Your task to perform on an android device: Open internet settings Image 0: 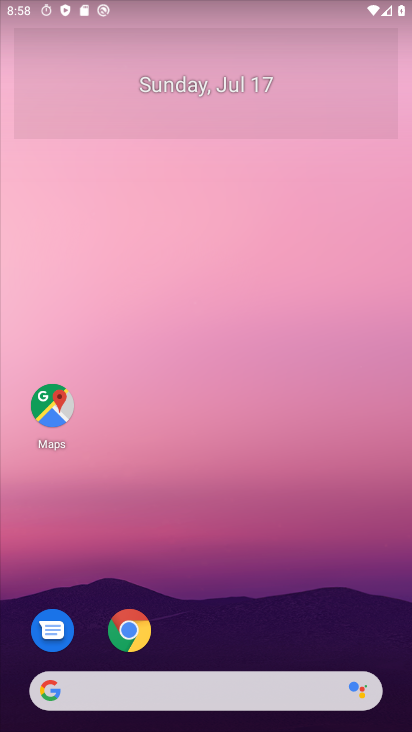
Step 0: drag from (41, 699) to (171, 208)
Your task to perform on an android device: Open internet settings Image 1: 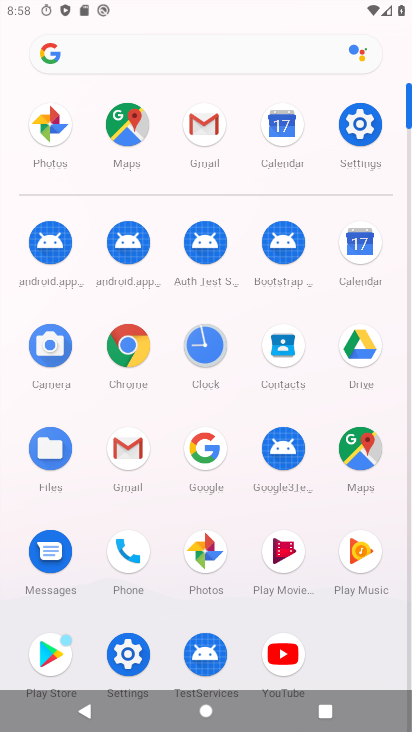
Step 1: click (127, 660)
Your task to perform on an android device: Open internet settings Image 2: 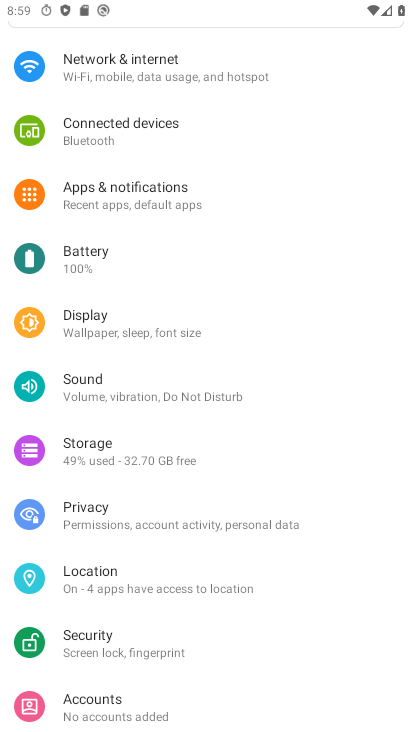
Step 2: click (157, 59)
Your task to perform on an android device: Open internet settings Image 3: 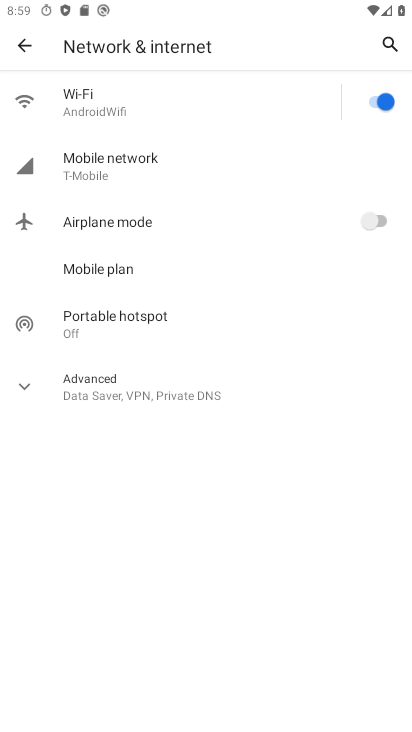
Step 3: task complete